Your task to perform on an android device: star an email in the gmail app Image 0: 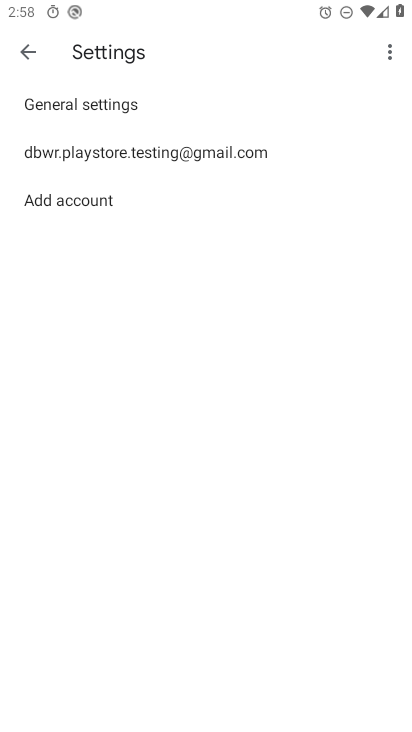
Step 0: press home button
Your task to perform on an android device: star an email in the gmail app Image 1: 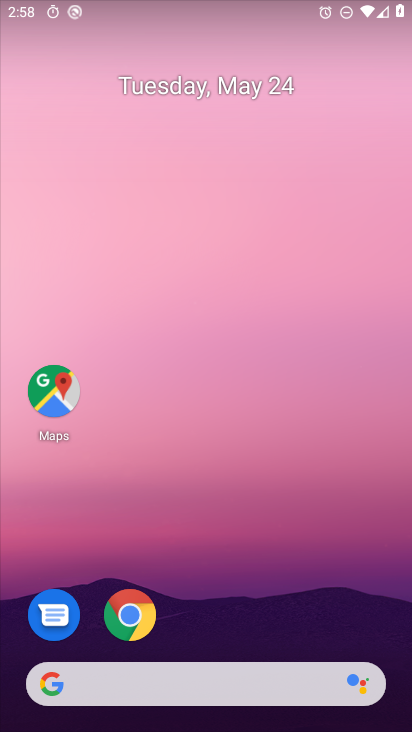
Step 1: drag from (170, 665) to (192, 253)
Your task to perform on an android device: star an email in the gmail app Image 2: 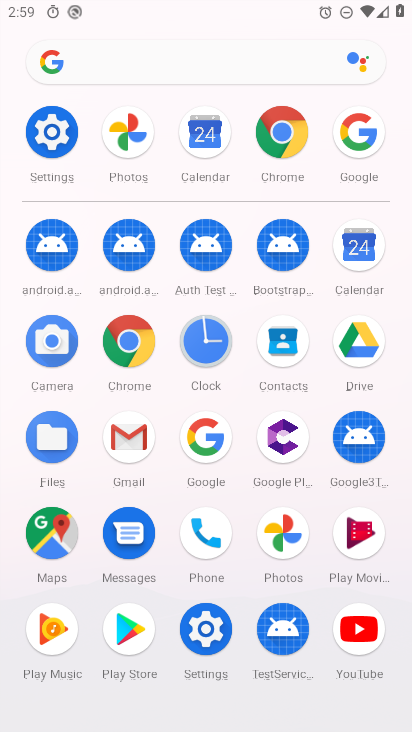
Step 2: click (127, 447)
Your task to perform on an android device: star an email in the gmail app Image 3: 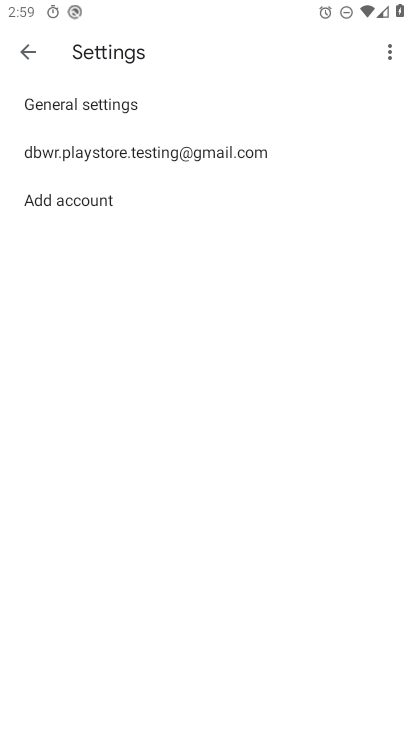
Step 3: click (28, 50)
Your task to perform on an android device: star an email in the gmail app Image 4: 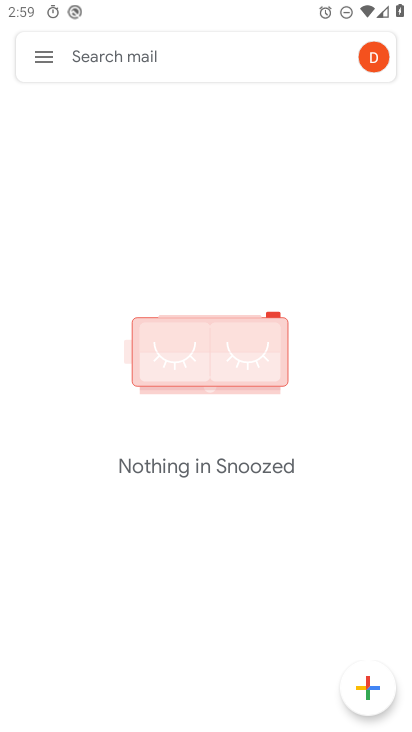
Step 4: click (33, 64)
Your task to perform on an android device: star an email in the gmail app Image 5: 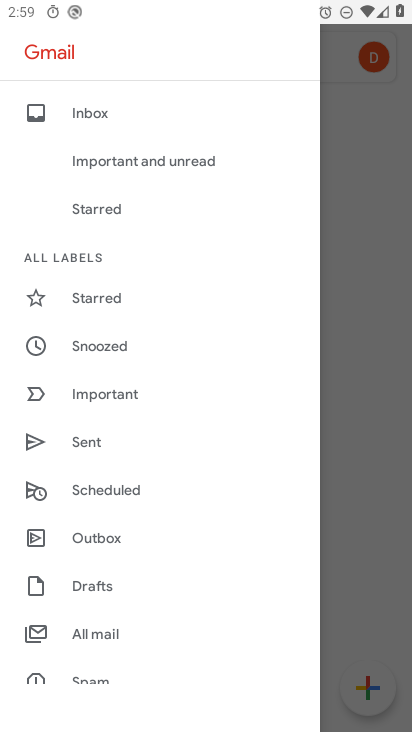
Step 5: click (97, 292)
Your task to perform on an android device: star an email in the gmail app Image 6: 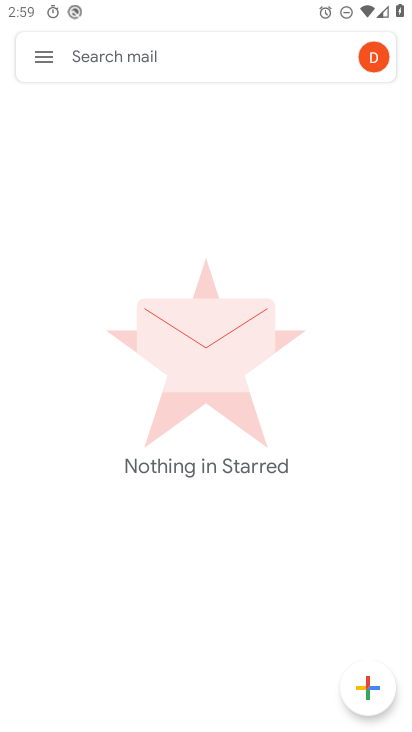
Step 6: task complete